Your task to perform on an android device: Open sound settings Image 0: 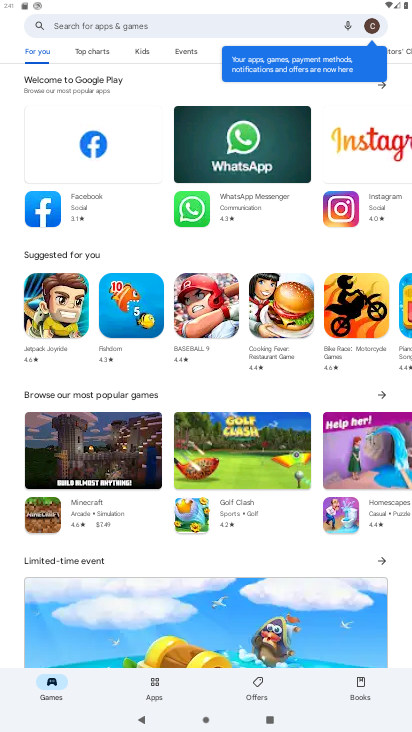
Step 0: press home button
Your task to perform on an android device: Open sound settings Image 1: 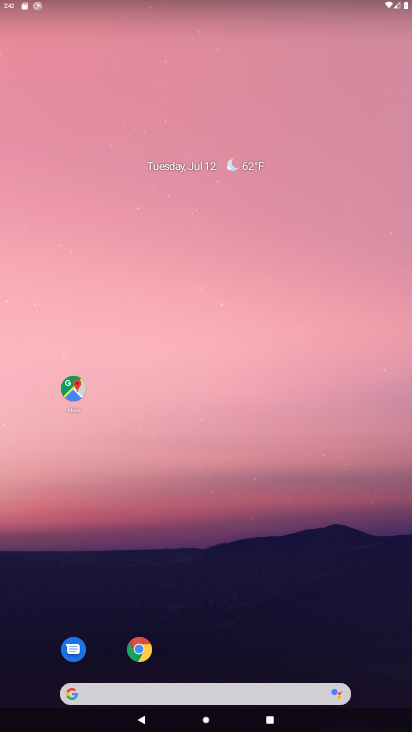
Step 1: drag from (244, 601) to (196, 177)
Your task to perform on an android device: Open sound settings Image 2: 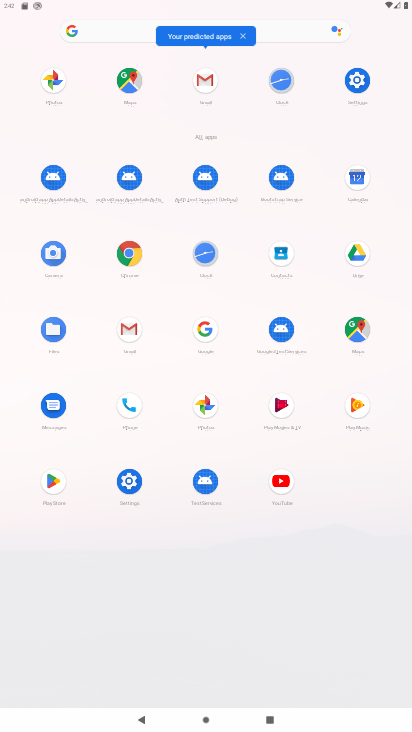
Step 2: click (360, 77)
Your task to perform on an android device: Open sound settings Image 3: 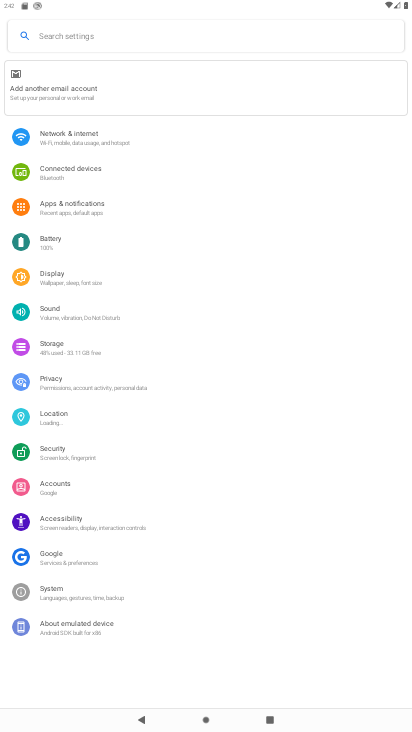
Step 3: click (47, 311)
Your task to perform on an android device: Open sound settings Image 4: 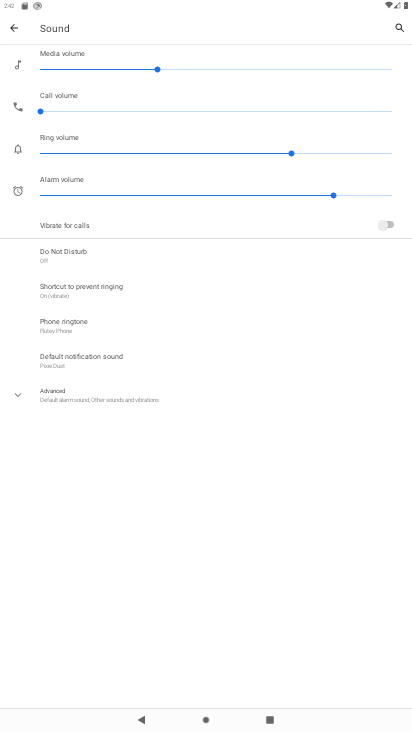
Step 4: task complete